Your task to perform on an android device: turn smart compose on in the gmail app Image 0: 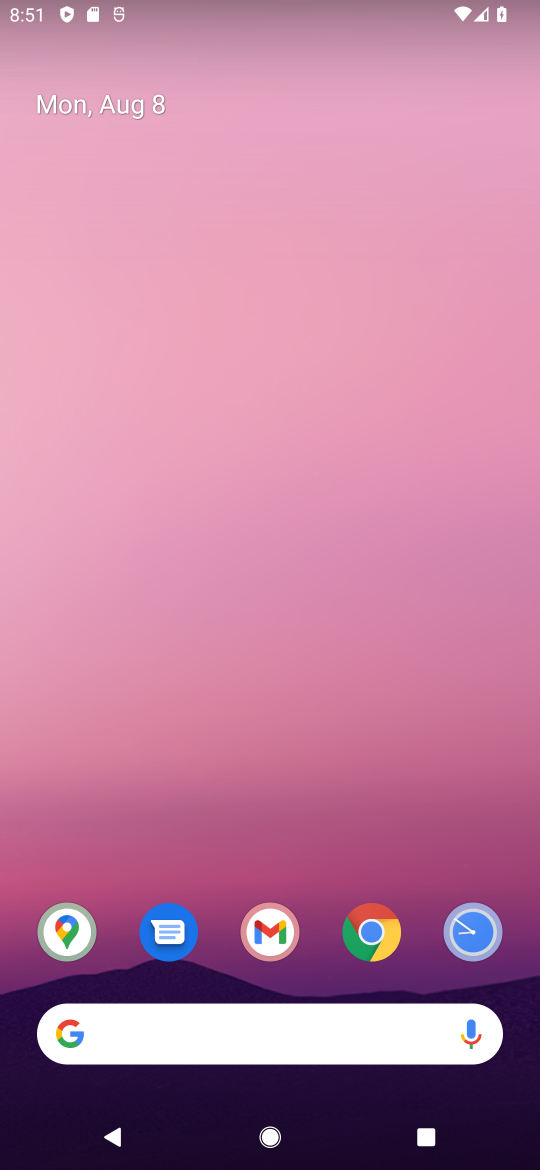
Step 0: click (277, 930)
Your task to perform on an android device: turn smart compose on in the gmail app Image 1: 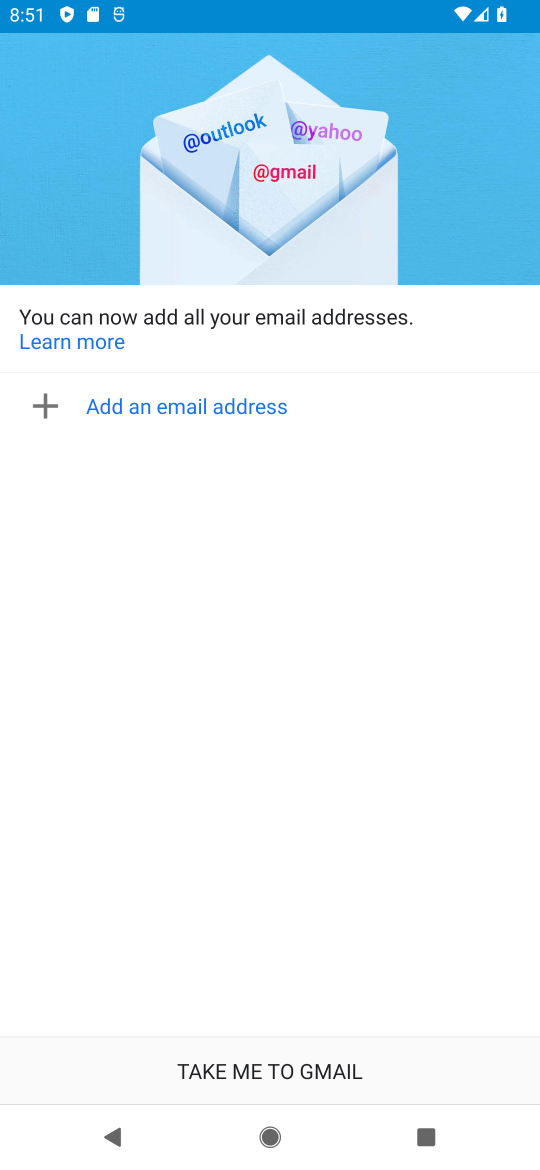
Step 1: task complete